Your task to perform on an android device: Search for seafood restaurants on Google Maps Image 0: 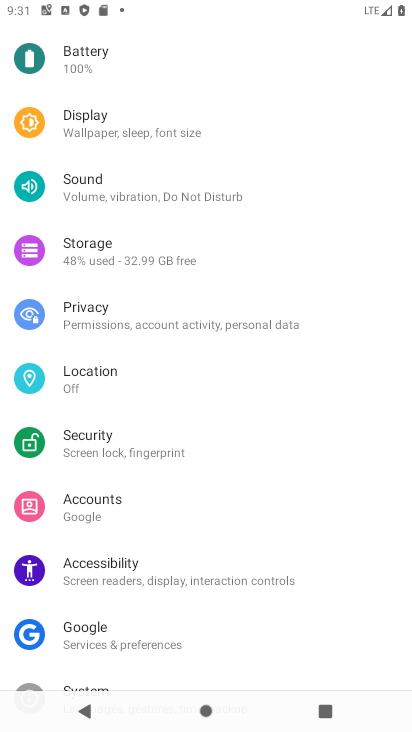
Step 0: press home button
Your task to perform on an android device: Search for seafood restaurants on Google Maps Image 1: 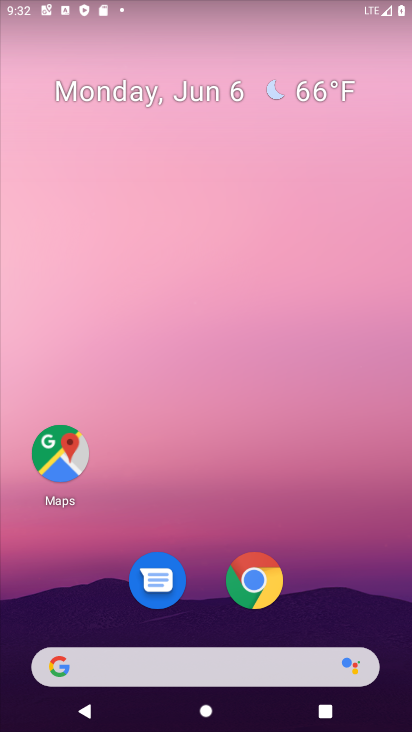
Step 1: drag from (341, 548) to (256, 6)
Your task to perform on an android device: Search for seafood restaurants on Google Maps Image 2: 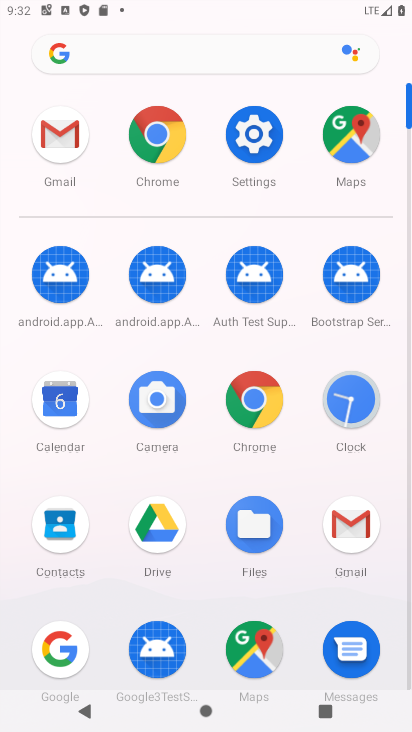
Step 2: click (363, 138)
Your task to perform on an android device: Search for seafood restaurants on Google Maps Image 3: 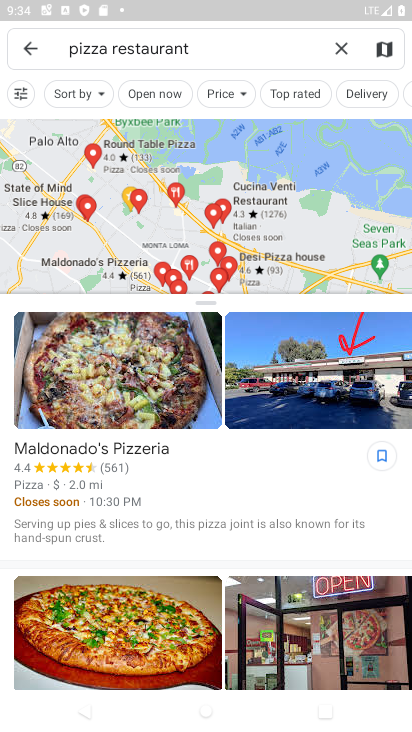
Step 3: press home button
Your task to perform on an android device: Search for seafood restaurants on Google Maps Image 4: 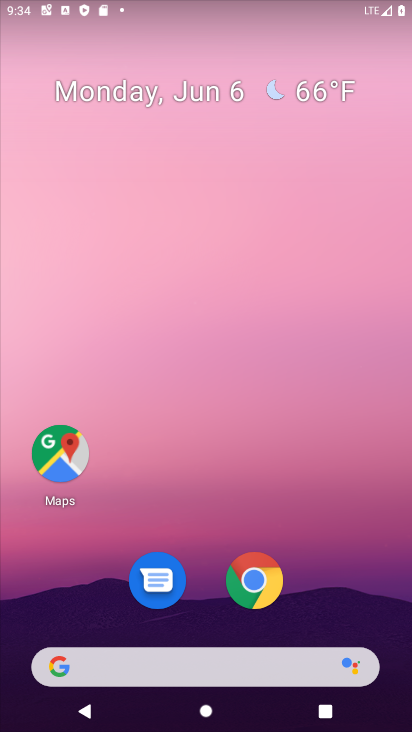
Step 4: drag from (335, 635) to (213, 5)
Your task to perform on an android device: Search for seafood restaurants on Google Maps Image 5: 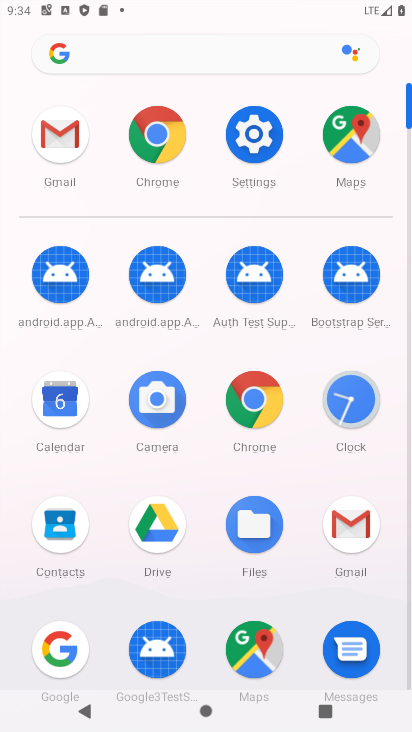
Step 5: click (364, 128)
Your task to perform on an android device: Search for seafood restaurants on Google Maps Image 6: 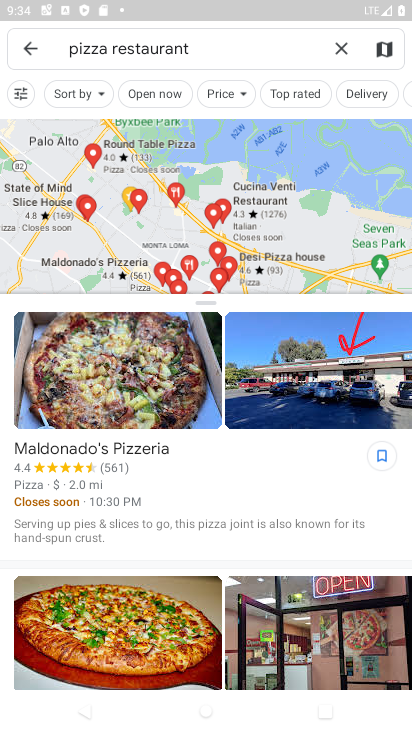
Step 6: click (341, 53)
Your task to perform on an android device: Search for seafood restaurants on Google Maps Image 7: 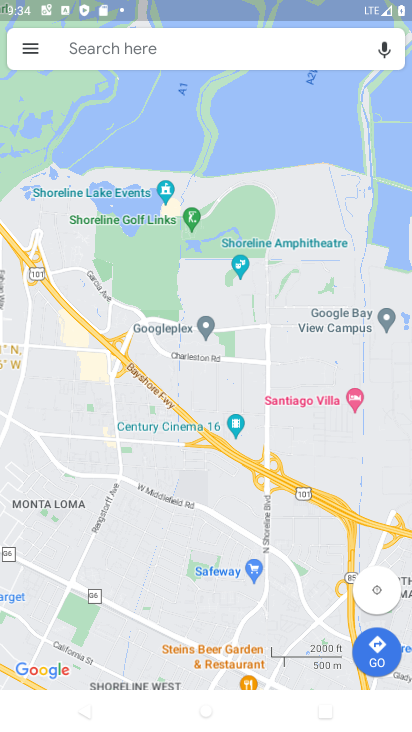
Step 7: click (245, 46)
Your task to perform on an android device: Search for seafood restaurants on Google Maps Image 8: 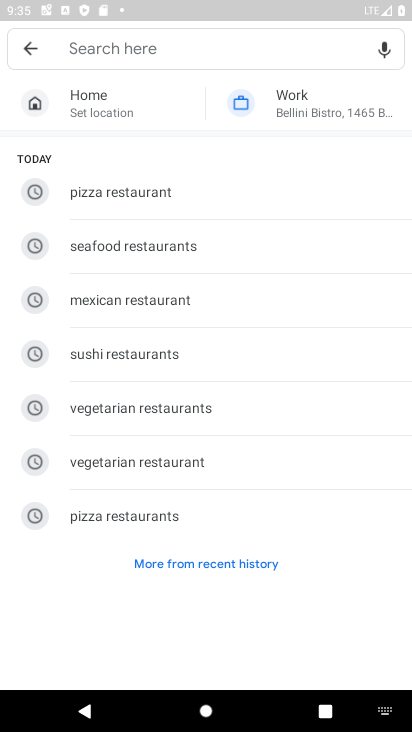
Step 8: click (157, 262)
Your task to perform on an android device: Search for seafood restaurants on Google Maps Image 9: 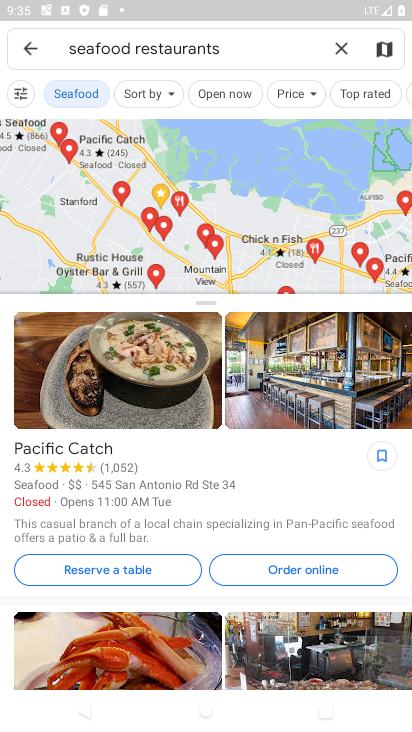
Step 9: task complete